Your task to perform on an android device: find which apps use the phone's location Image 0: 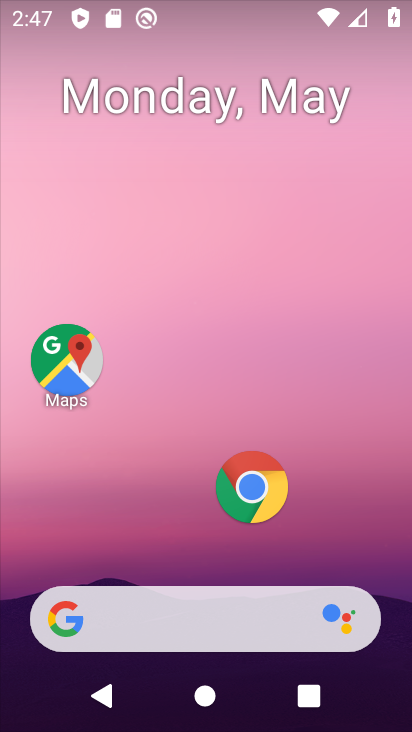
Step 0: drag from (166, 544) to (272, 0)
Your task to perform on an android device: find which apps use the phone's location Image 1: 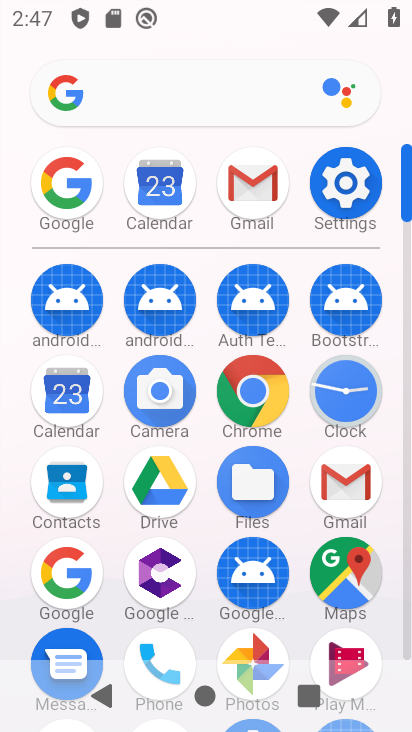
Step 1: click (345, 182)
Your task to perform on an android device: find which apps use the phone's location Image 2: 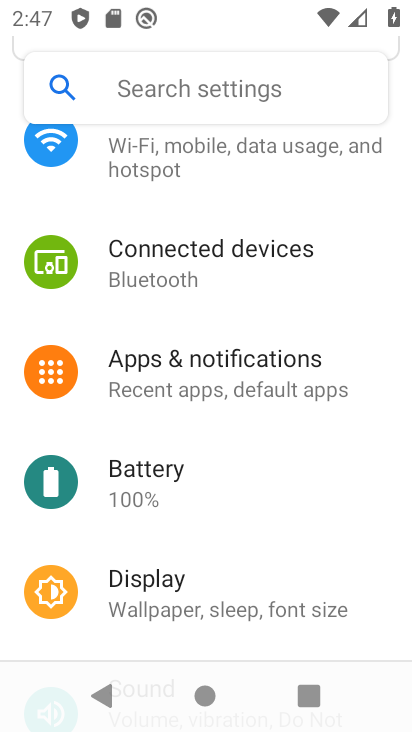
Step 2: drag from (191, 309) to (227, 93)
Your task to perform on an android device: find which apps use the phone's location Image 3: 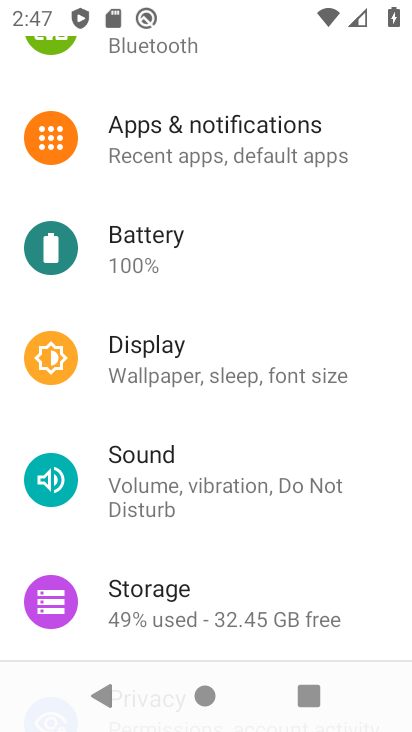
Step 3: drag from (136, 516) to (132, 368)
Your task to perform on an android device: find which apps use the phone's location Image 4: 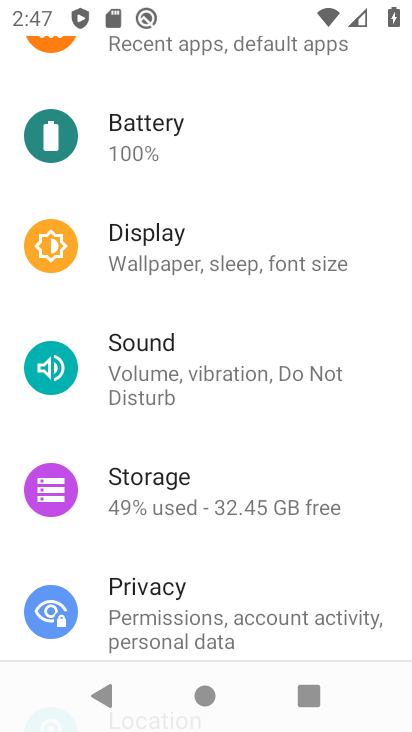
Step 4: drag from (108, 607) to (147, 359)
Your task to perform on an android device: find which apps use the phone's location Image 5: 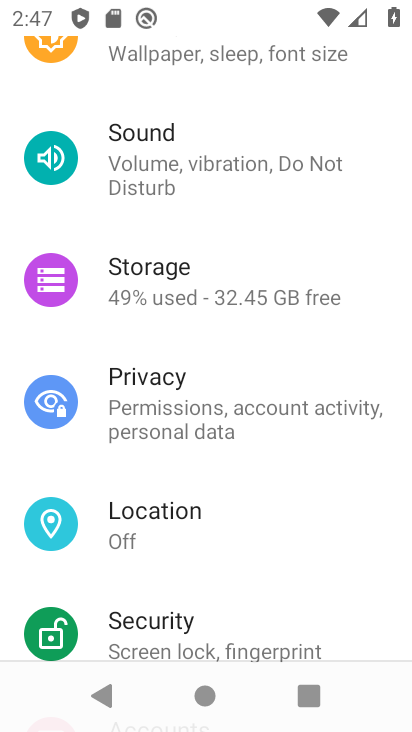
Step 5: click (104, 542)
Your task to perform on an android device: find which apps use the phone's location Image 6: 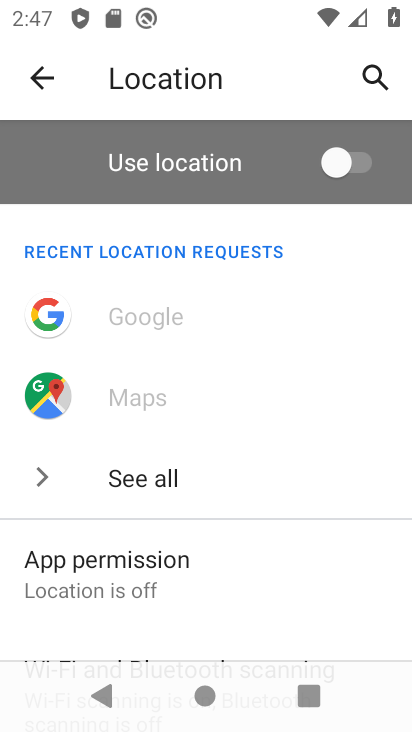
Step 6: click (111, 584)
Your task to perform on an android device: find which apps use the phone's location Image 7: 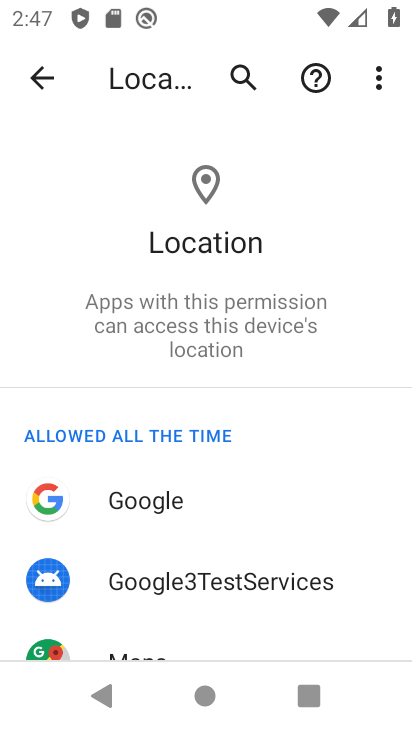
Step 7: task complete